Your task to perform on an android device: open a bookmark in the chrome app Image 0: 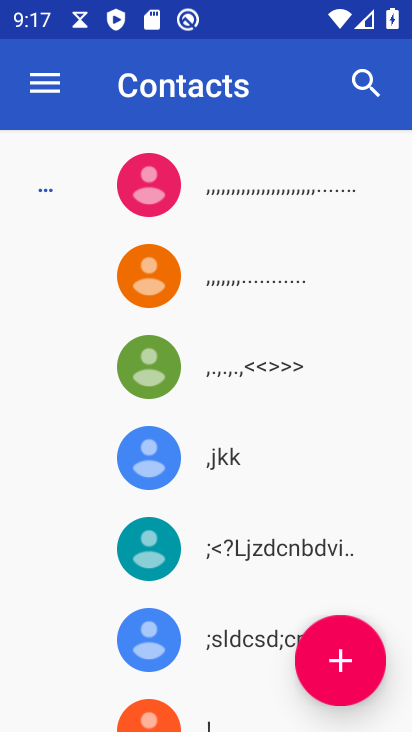
Step 0: press home button
Your task to perform on an android device: open a bookmark in the chrome app Image 1: 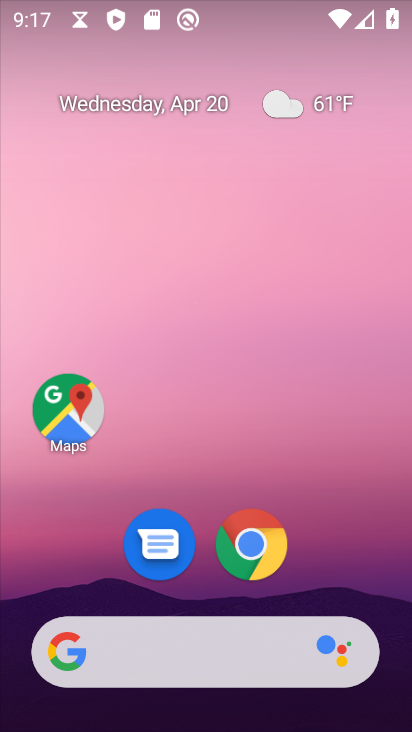
Step 1: drag from (212, 553) to (334, 132)
Your task to perform on an android device: open a bookmark in the chrome app Image 2: 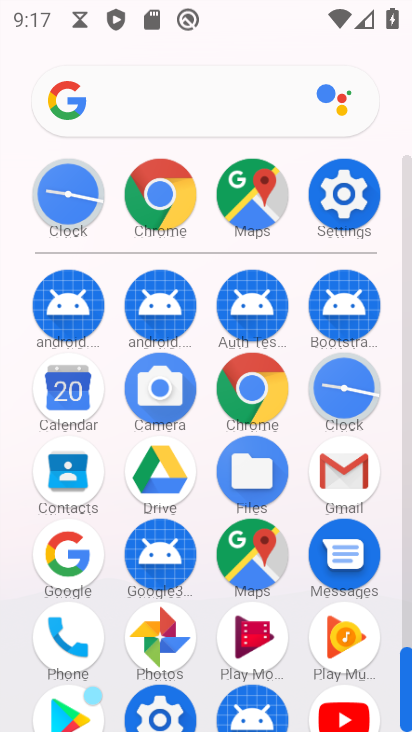
Step 2: click (171, 212)
Your task to perform on an android device: open a bookmark in the chrome app Image 3: 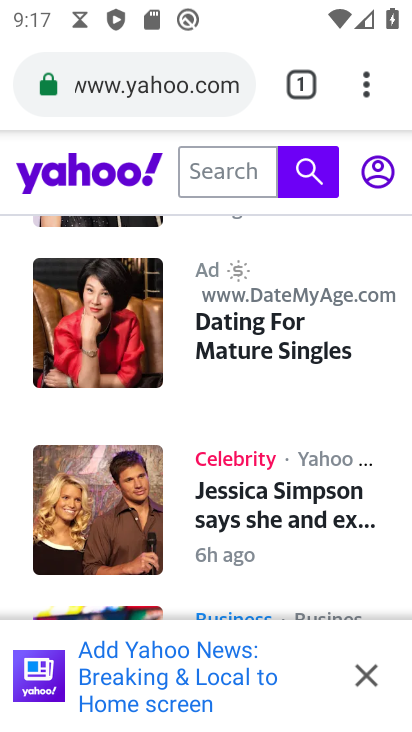
Step 3: click (359, 103)
Your task to perform on an android device: open a bookmark in the chrome app Image 4: 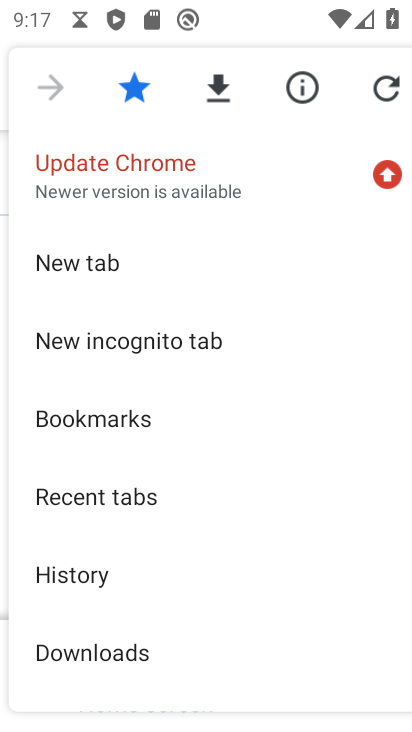
Step 4: click (53, 420)
Your task to perform on an android device: open a bookmark in the chrome app Image 5: 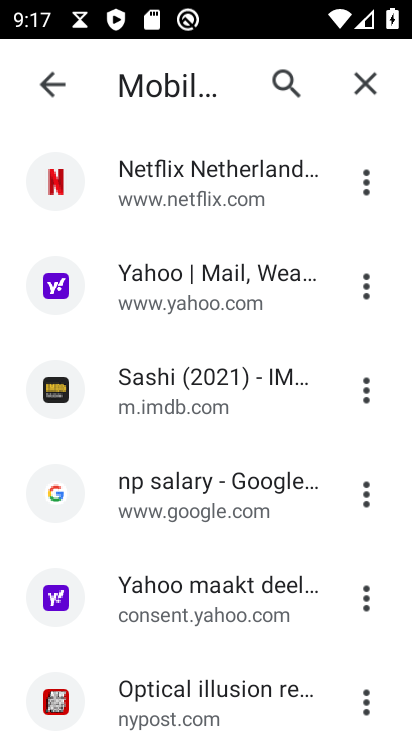
Step 5: task complete